Your task to perform on an android device: check android version Image 0: 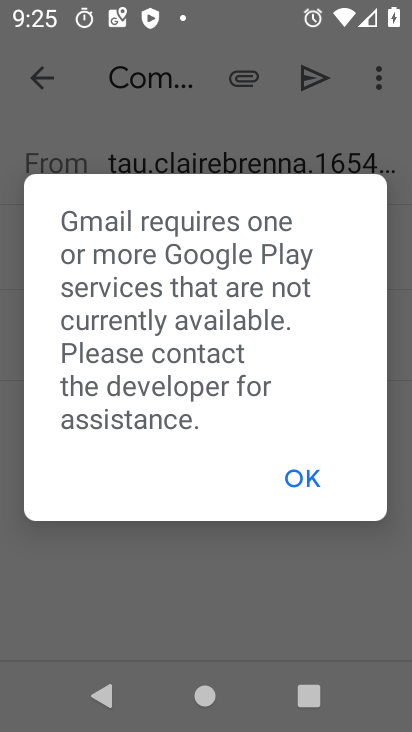
Step 0: press home button
Your task to perform on an android device: check android version Image 1: 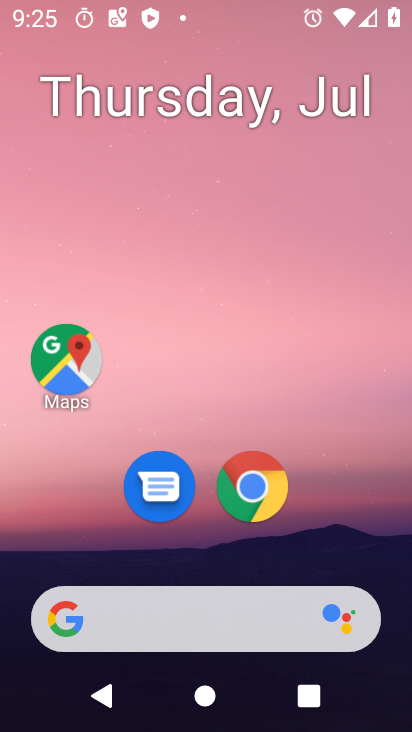
Step 1: drag from (238, 634) to (290, 163)
Your task to perform on an android device: check android version Image 2: 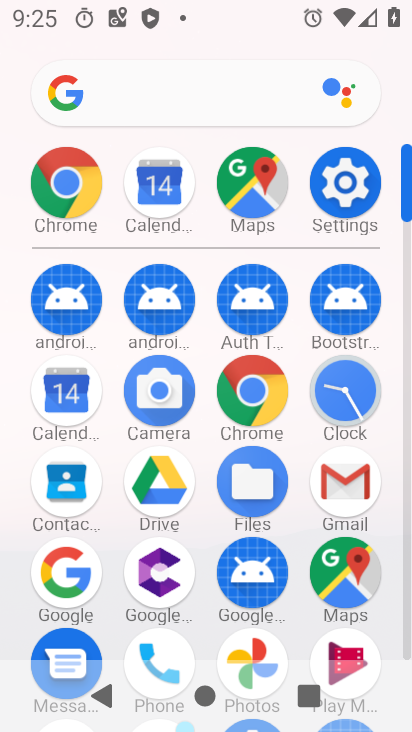
Step 2: click (331, 188)
Your task to perform on an android device: check android version Image 3: 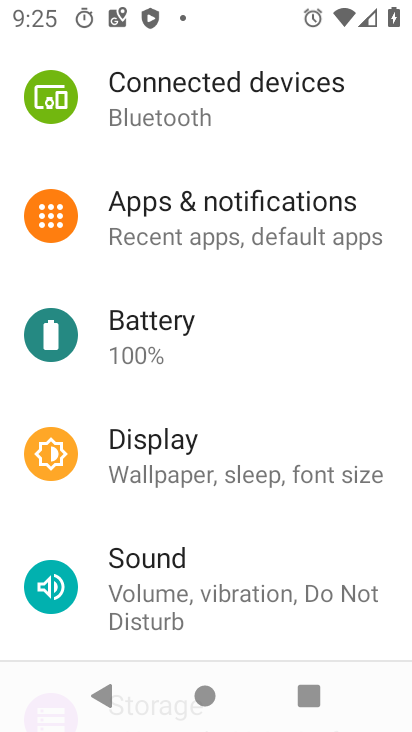
Step 3: drag from (185, 515) to (287, 74)
Your task to perform on an android device: check android version Image 4: 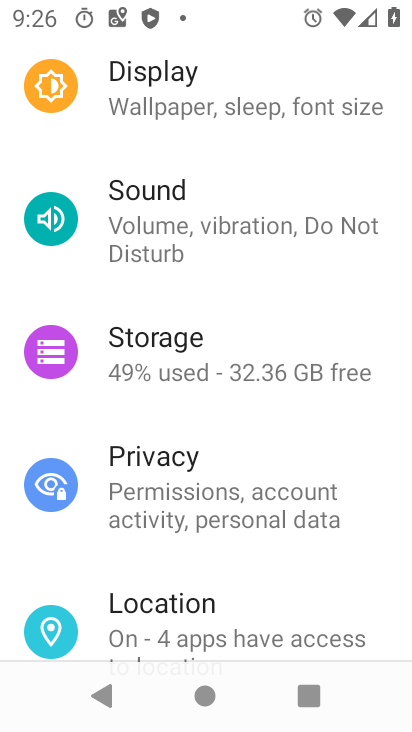
Step 4: drag from (209, 464) to (280, 68)
Your task to perform on an android device: check android version Image 5: 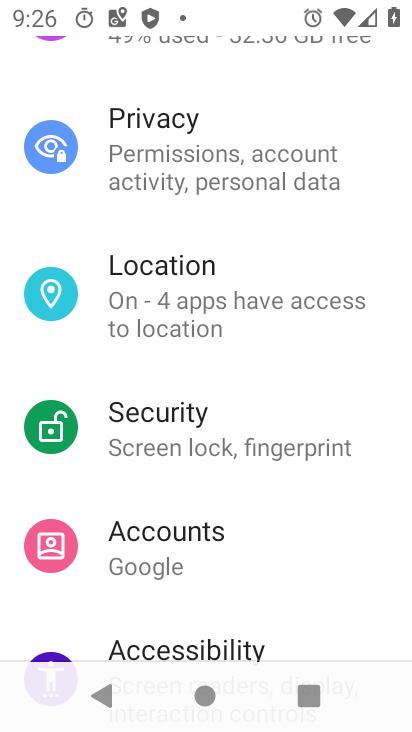
Step 5: drag from (175, 577) to (245, 198)
Your task to perform on an android device: check android version Image 6: 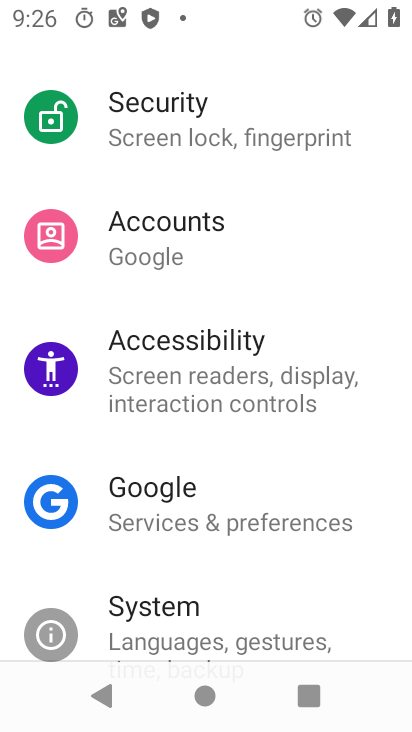
Step 6: drag from (185, 494) to (244, 141)
Your task to perform on an android device: check android version Image 7: 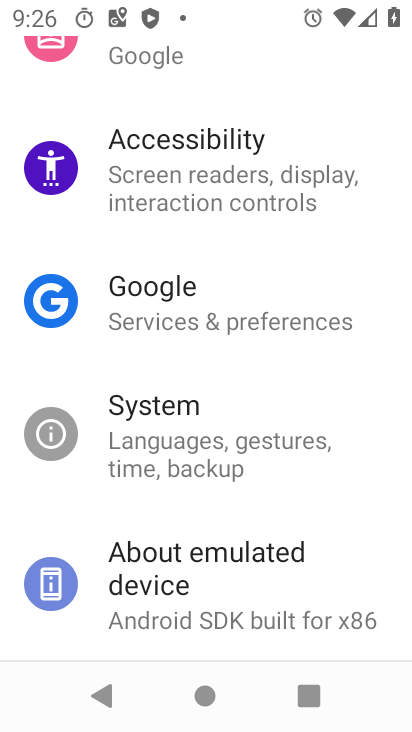
Step 7: click (216, 595)
Your task to perform on an android device: check android version Image 8: 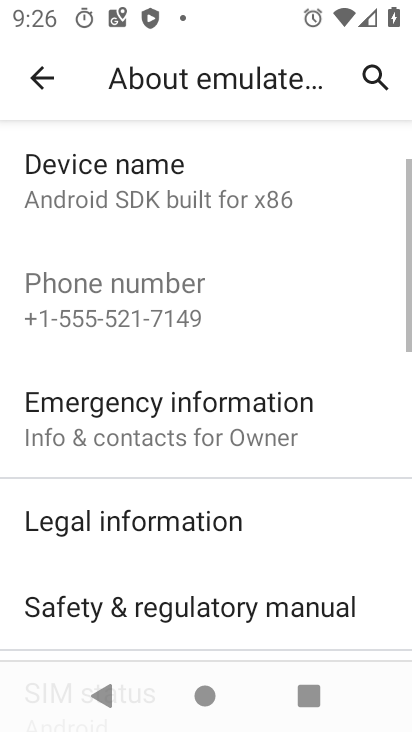
Step 8: drag from (161, 496) to (223, 153)
Your task to perform on an android device: check android version Image 9: 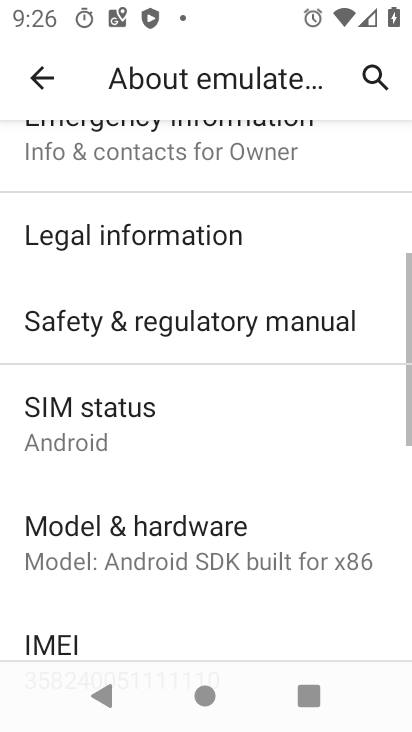
Step 9: drag from (137, 539) to (191, 211)
Your task to perform on an android device: check android version Image 10: 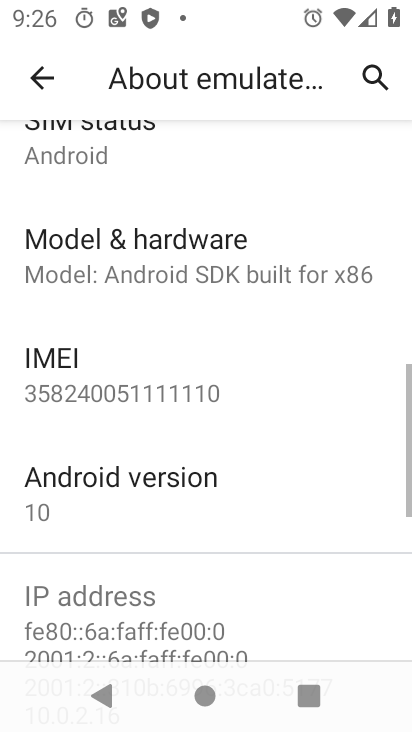
Step 10: click (148, 504)
Your task to perform on an android device: check android version Image 11: 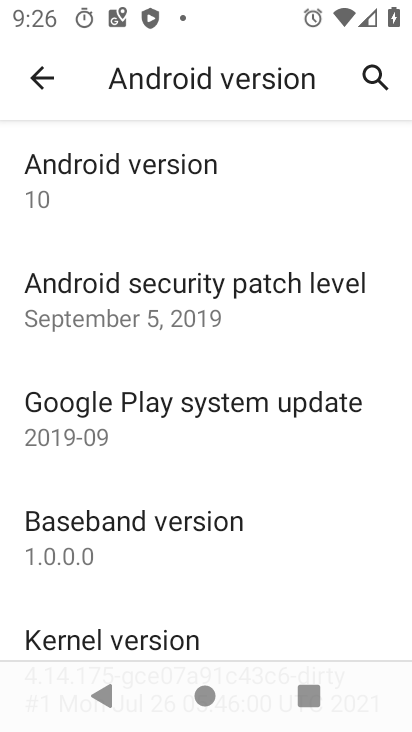
Step 11: click (185, 192)
Your task to perform on an android device: check android version Image 12: 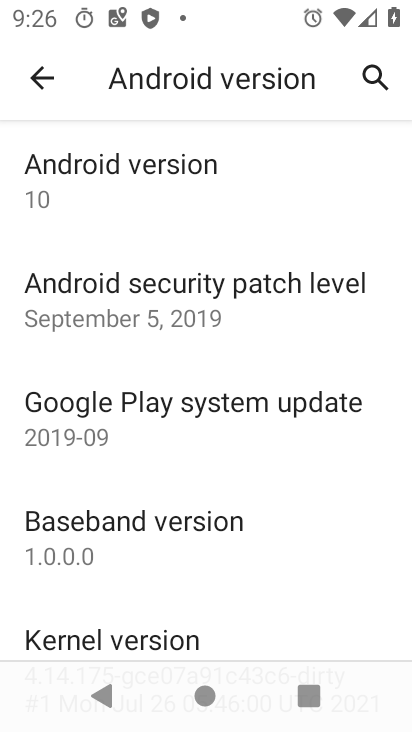
Step 12: task complete